Your task to perform on an android device: turn off wifi Image 0: 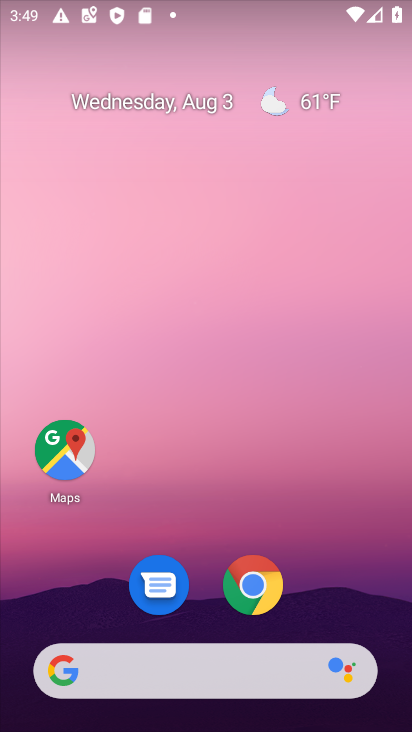
Step 0: drag from (385, 697) to (243, 5)
Your task to perform on an android device: turn off wifi Image 1: 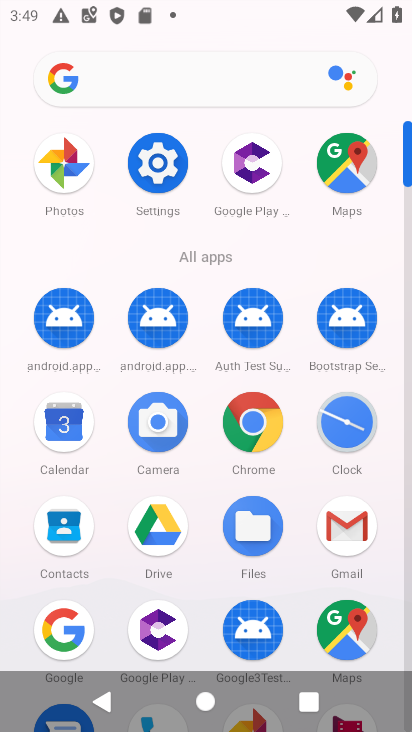
Step 1: click (166, 163)
Your task to perform on an android device: turn off wifi Image 2: 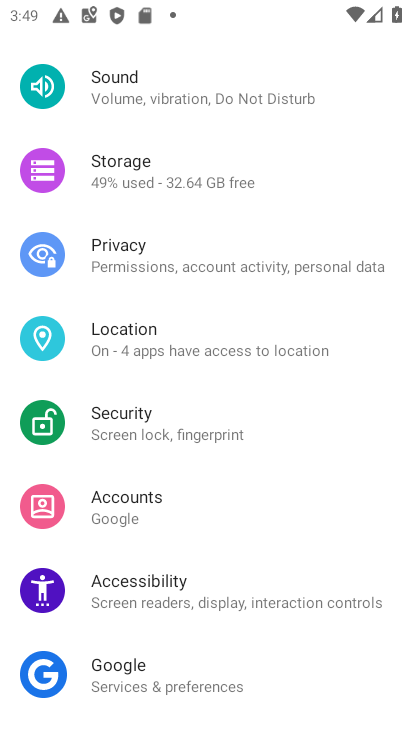
Step 2: drag from (233, 270) to (262, 685)
Your task to perform on an android device: turn off wifi Image 3: 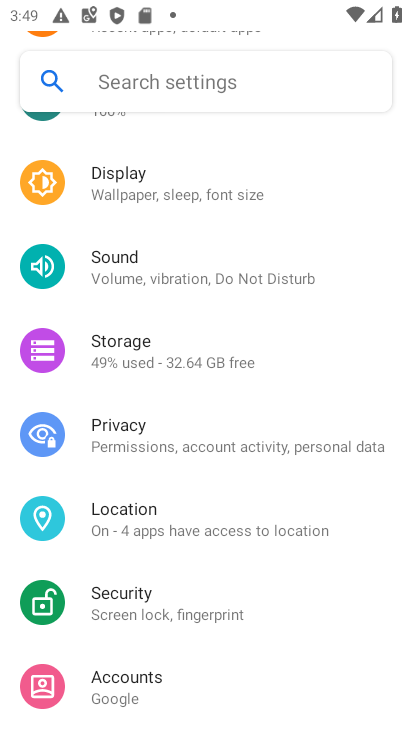
Step 3: drag from (295, 394) to (337, 701)
Your task to perform on an android device: turn off wifi Image 4: 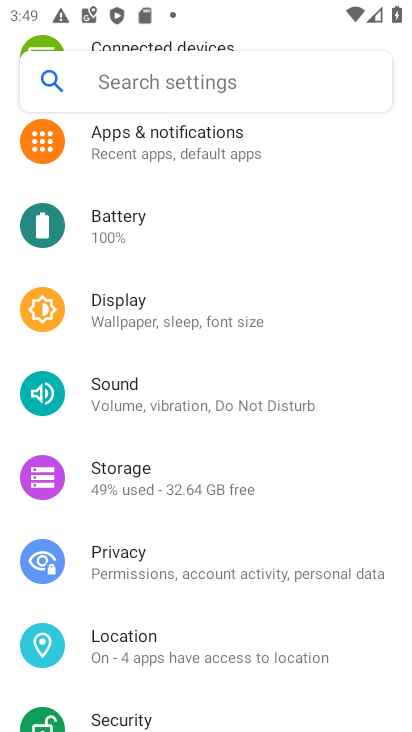
Step 4: drag from (273, 144) to (313, 706)
Your task to perform on an android device: turn off wifi Image 5: 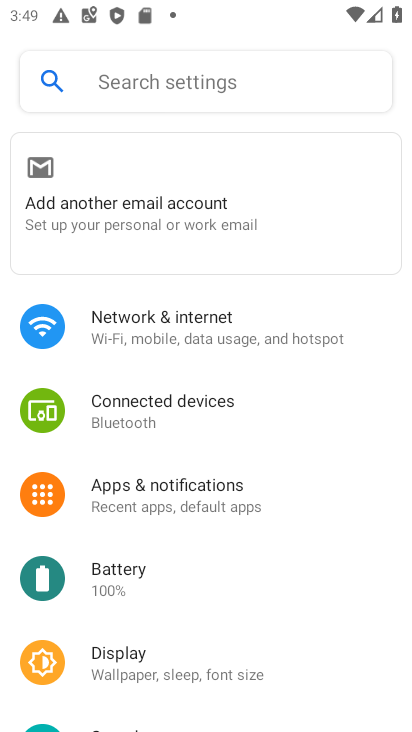
Step 5: click (121, 321)
Your task to perform on an android device: turn off wifi Image 6: 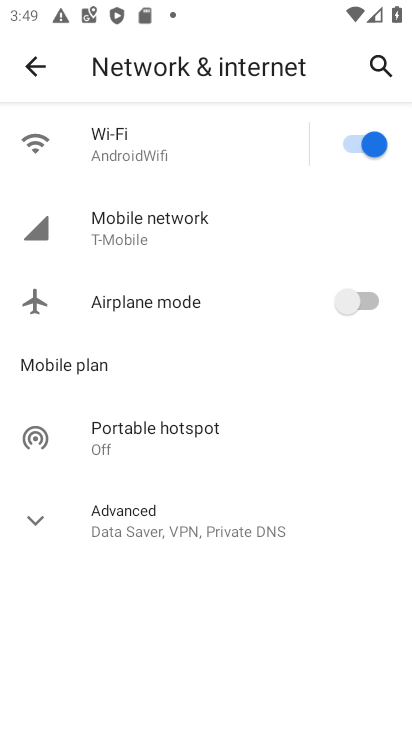
Step 6: click (354, 135)
Your task to perform on an android device: turn off wifi Image 7: 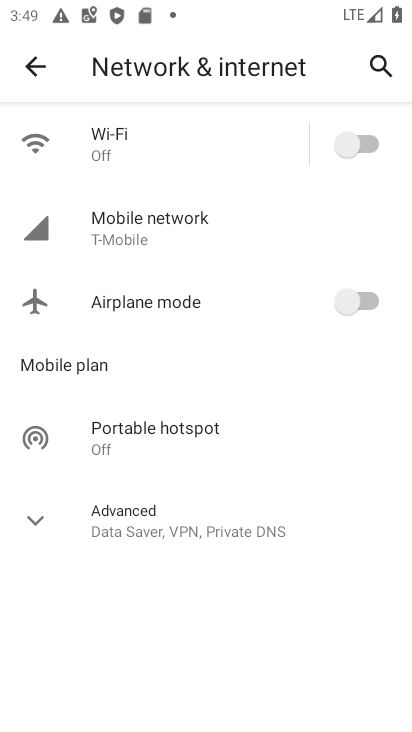
Step 7: task complete